Your task to perform on an android device: Go to display settings Image 0: 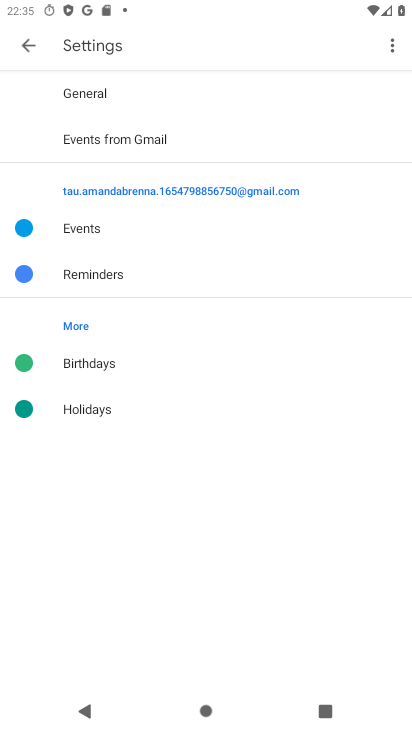
Step 0: press home button
Your task to perform on an android device: Go to display settings Image 1: 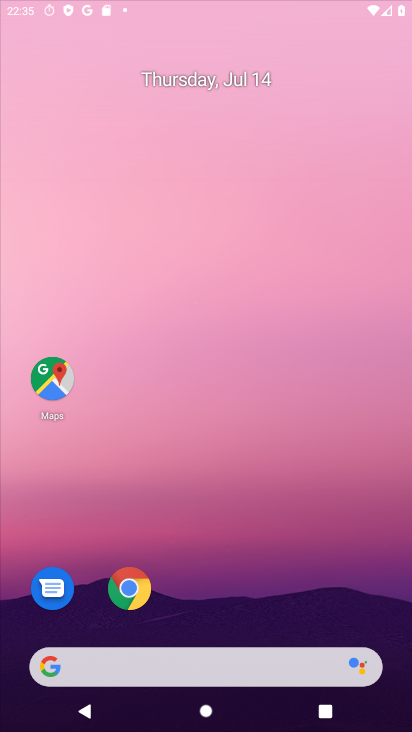
Step 1: drag from (234, 599) to (249, 92)
Your task to perform on an android device: Go to display settings Image 2: 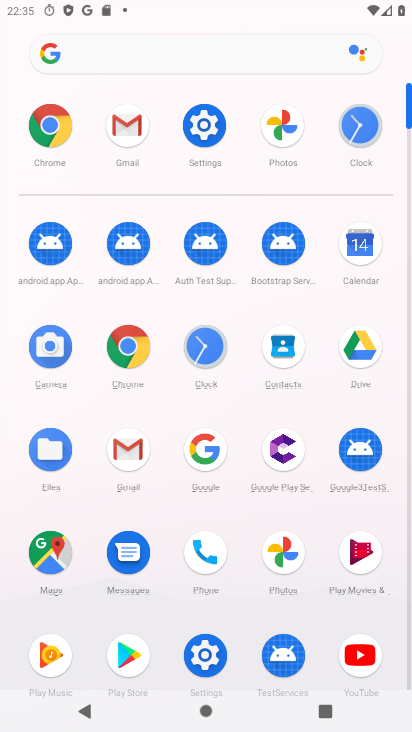
Step 2: click (208, 126)
Your task to perform on an android device: Go to display settings Image 3: 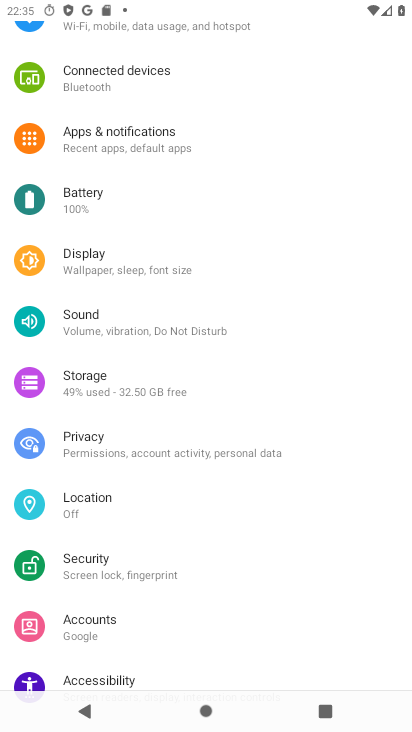
Step 3: click (123, 256)
Your task to perform on an android device: Go to display settings Image 4: 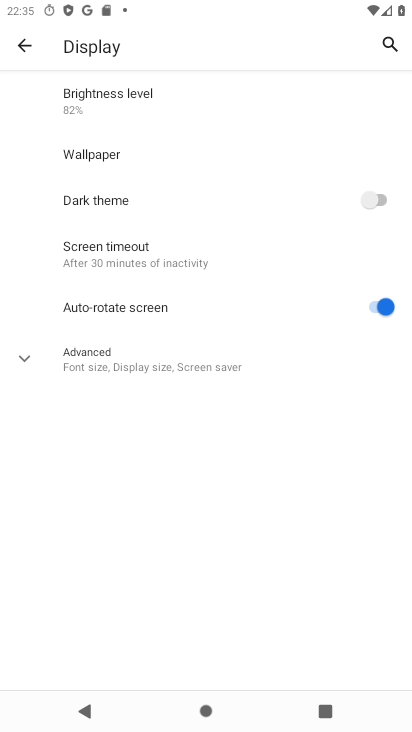
Step 4: task complete